Your task to perform on an android device: set the timer Image 0: 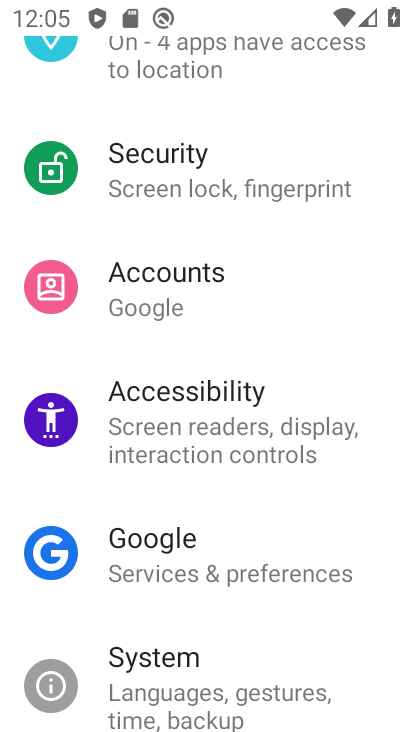
Step 0: press back button
Your task to perform on an android device: set the timer Image 1: 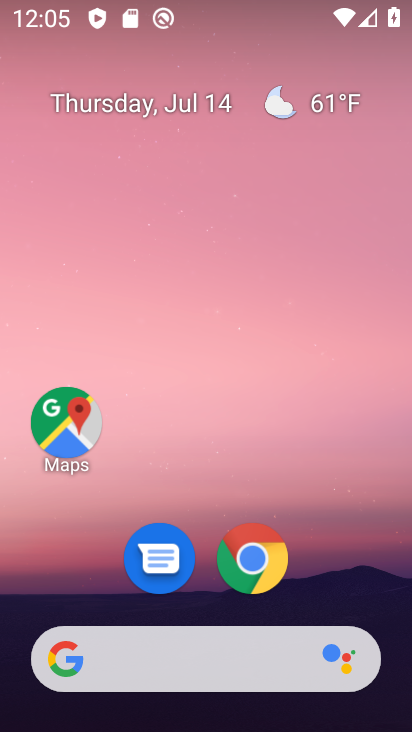
Step 1: drag from (202, 575) to (270, 39)
Your task to perform on an android device: set the timer Image 2: 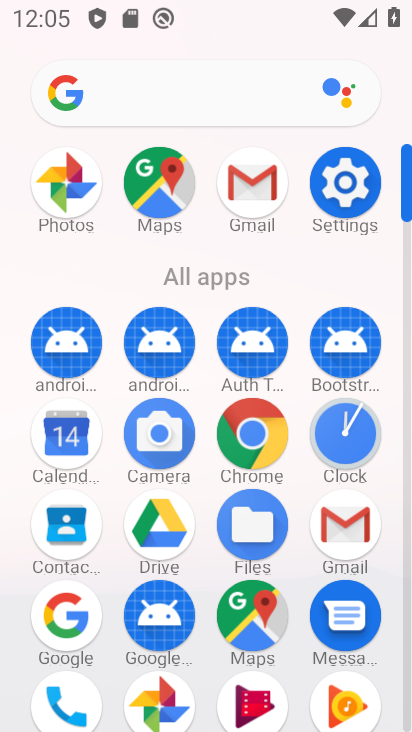
Step 2: click (358, 431)
Your task to perform on an android device: set the timer Image 3: 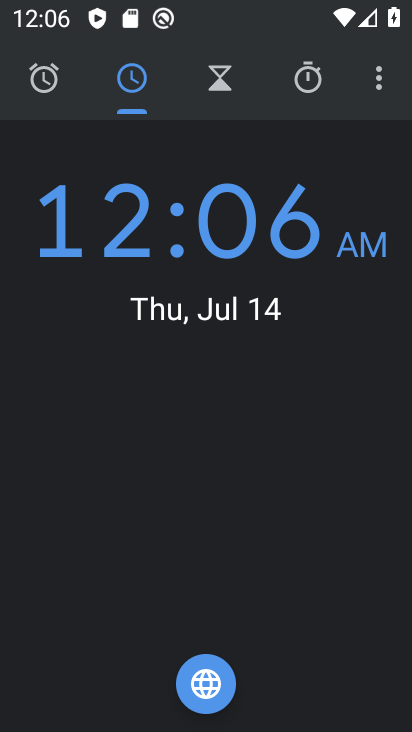
Step 3: click (220, 78)
Your task to perform on an android device: set the timer Image 4: 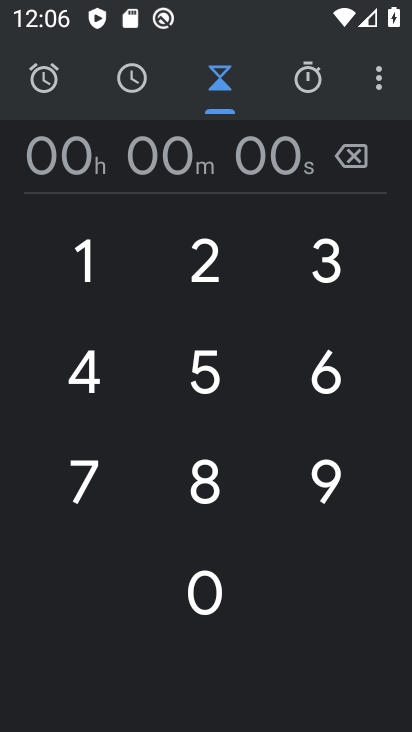
Step 4: click (199, 255)
Your task to perform on an android device: set the timer Image 5: 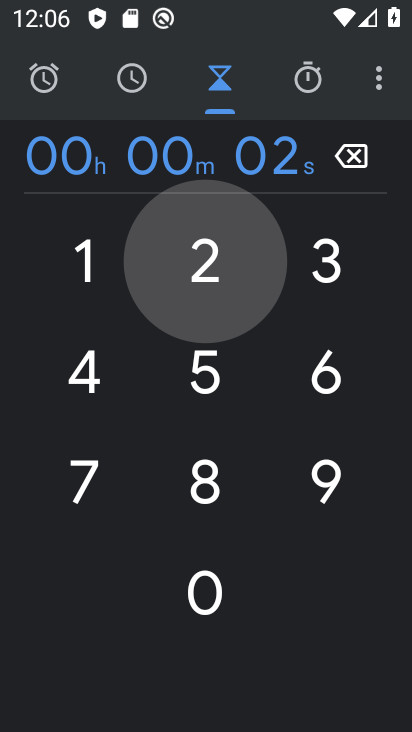
Step 5: click (364, 258)
Your task to perform on an android device: set the timer Image 6: 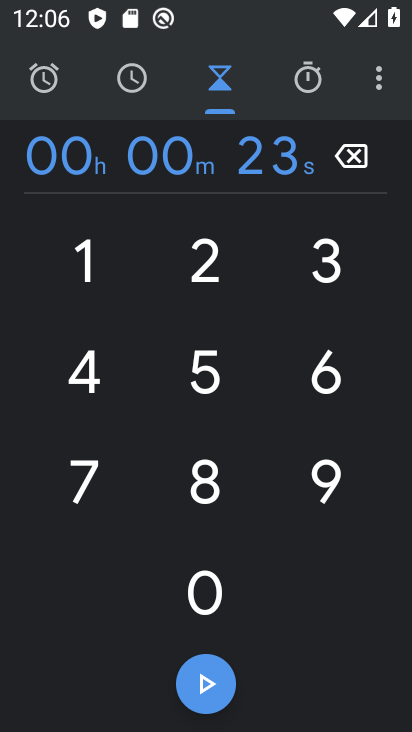
Step 6: click (148, 389)
Your task to perform on an android device: set the timer Image 7: 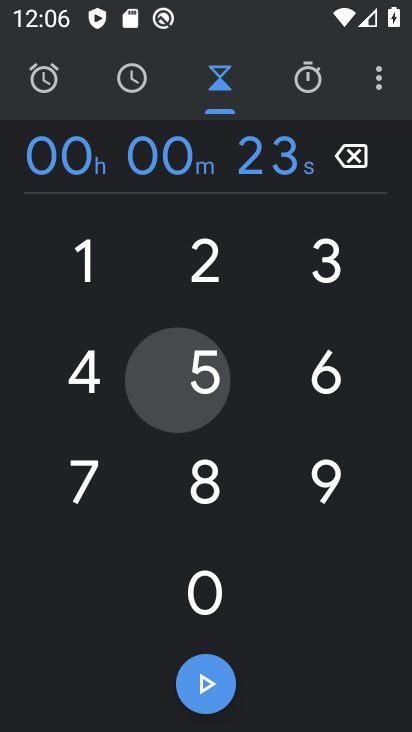
Step 7: click (293, 391)
Your task to perform on an android device: set the timer Image 8: 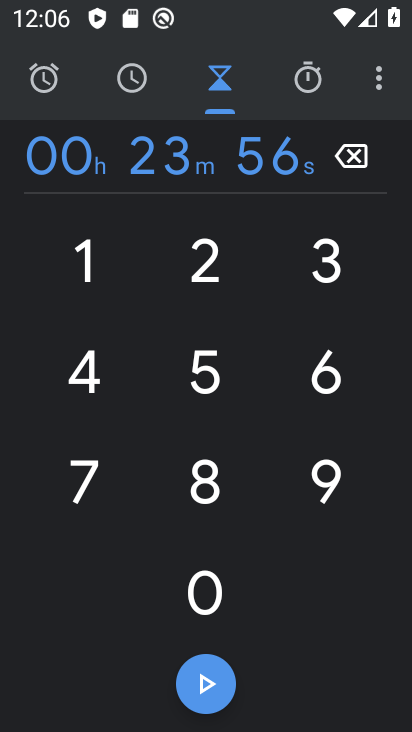
Step 8: task complete